Your task to perform on an android device: Go to settings Image 0: 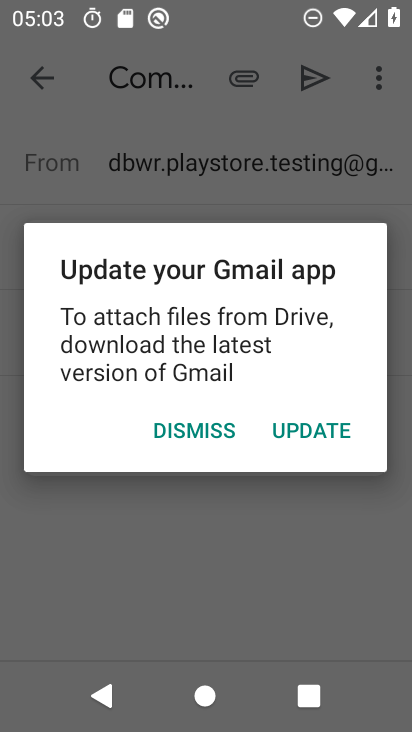
Step 0: press home button
Your task to perform on an android device: Go to settings Image 1: 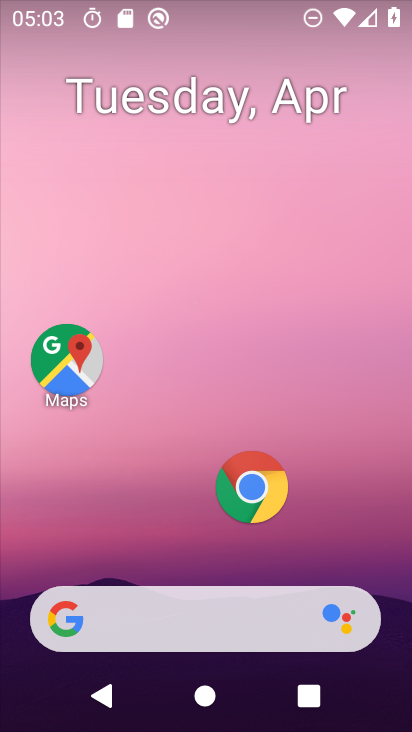
Step 1: drag from (169, 524) to (285, 7)
Your task to perform on an android device: Go to settings Image 2: 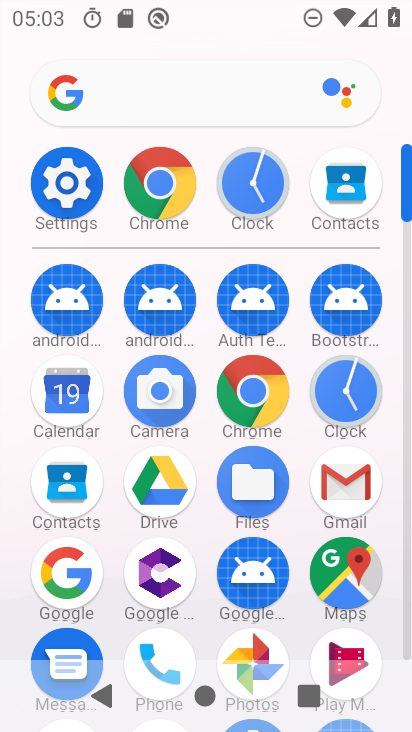
Step 2: click (74, 181)
Your task to perform on an android device: Go to settings Image 3: 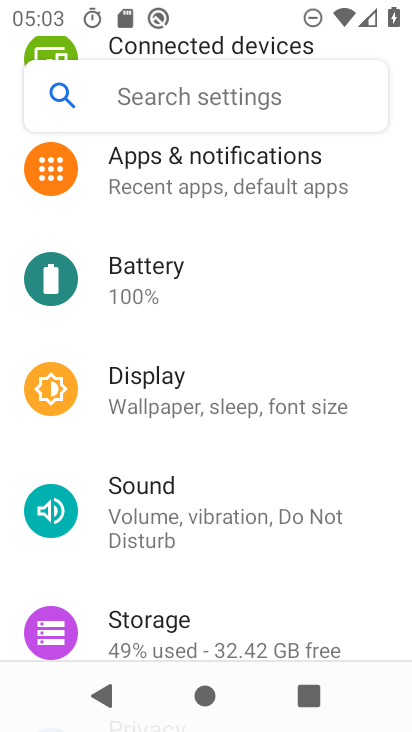
Step 3: task complete